Your task to perform on an android device: toggle wifi Image 0: 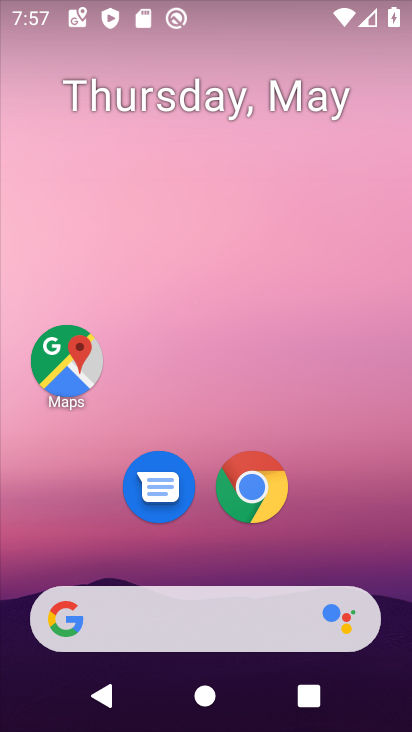
Step 0: drag from (180, 558) to (240, 125)
Your task to perform on an android device: toggle wifi Image 1: 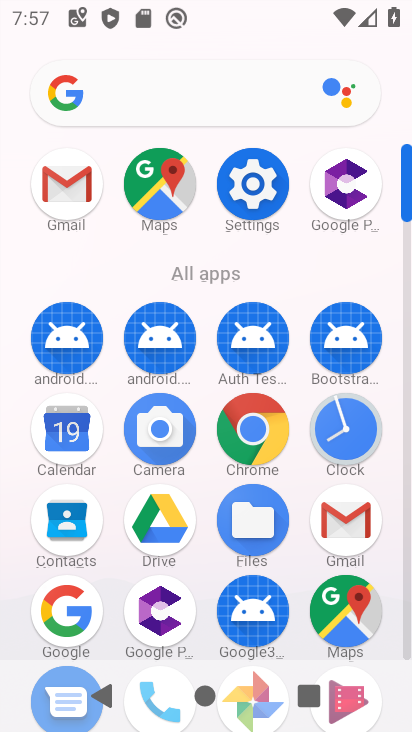
Step 1: click (259, 158)
Your task to perform on an android device: toggle wifi Image 2: 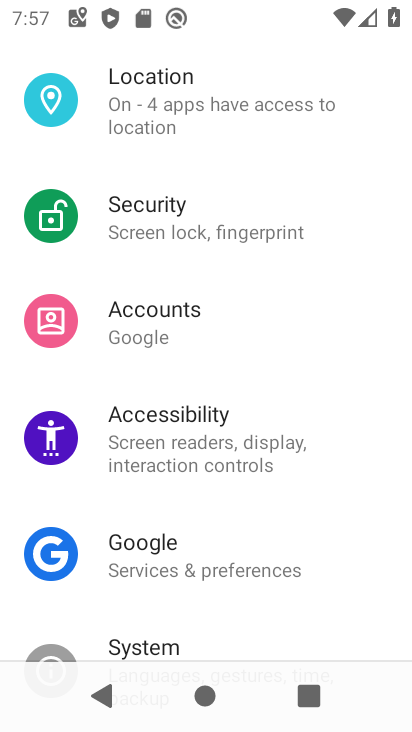
Step 2: drag from (255, 152) to (319, 731)
Your task to perform on an android device: toggle wifi Image 3: 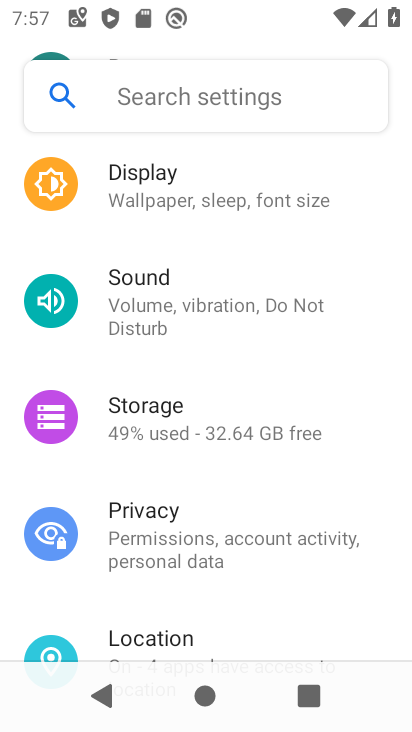
Step 3: drag from (243, 201) to (281, 680)
Your task to perform on an android device: toggle wifi Image 4: 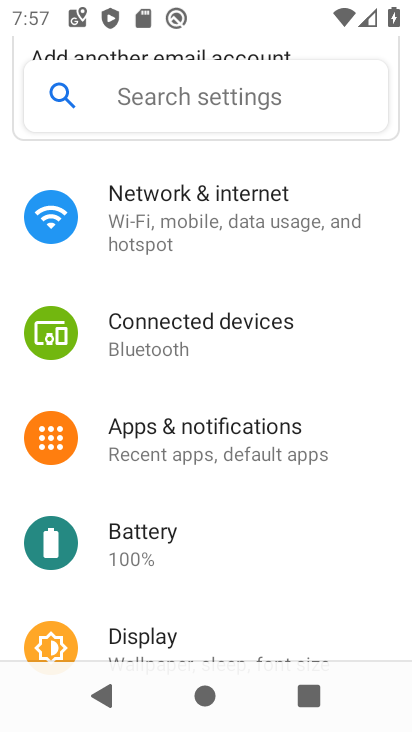
Step 4: click (215, 213)
Your task to perform on an android device: toggle wifi Image 5: 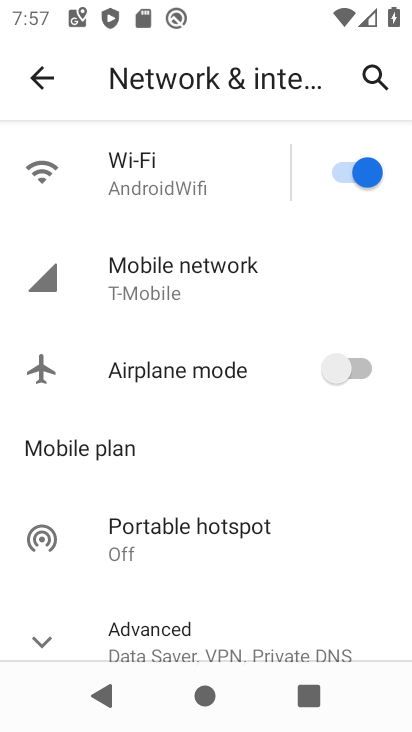
Step 5: click (216, 204)
Your task to perform on an android device: toggle wifi Image 6: 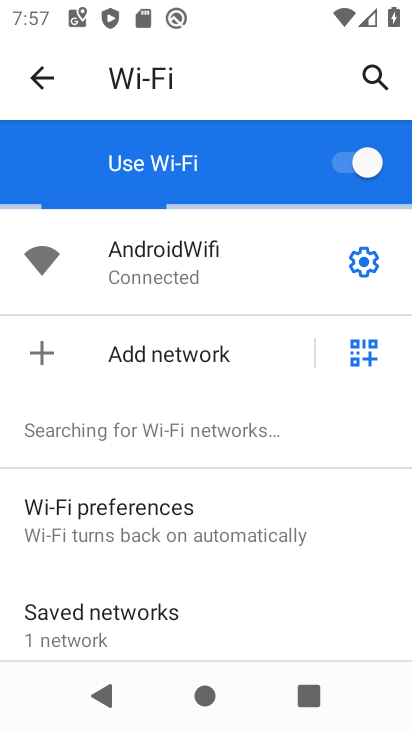
Step 6: click (334, 154)
Your task to perform on an android device: toggle wifi Image 7: 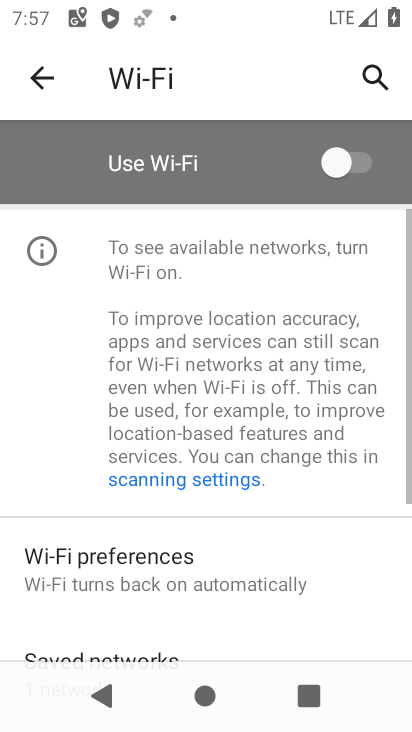
Step 7: task complete